Your task to perform on an android device: turn on translation in the chrome app Image 0: 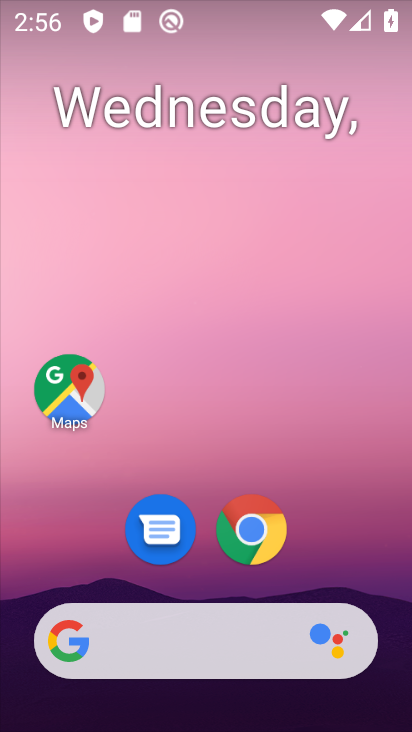
Step 0: click (258, 510)
Your task to perform on an android device: turn on translation in the chrome app Image 1: 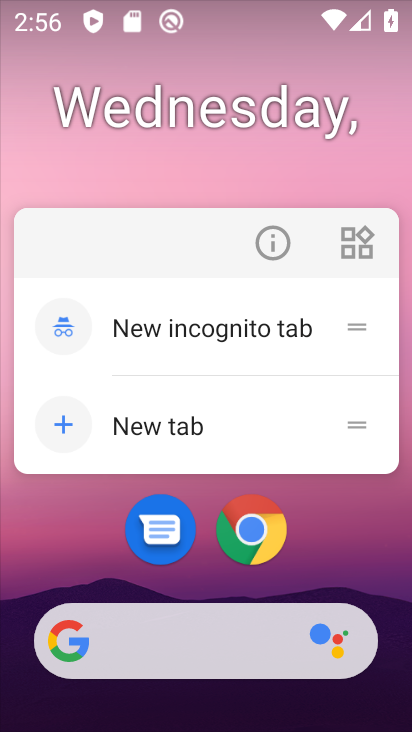
Step 1: click (261, 522)
Your task to perform on an android device: turn on translation in the chrome app Image 2: 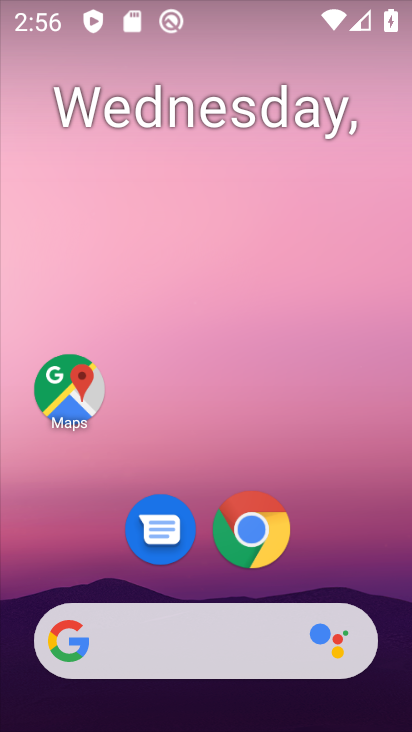
Step 2: click (261, 522)
Your task to perform on an android device: turn on translation in the chrome app Image 3: 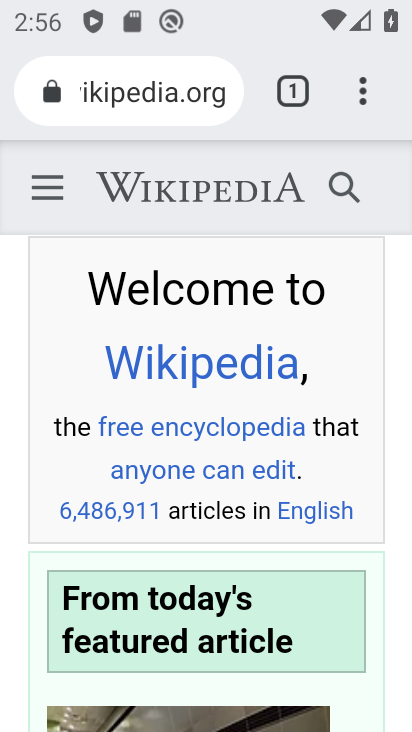
Step 3: click (359, 98)
Your task to perform on an android device: turn on translation in the chrome app Image 4: 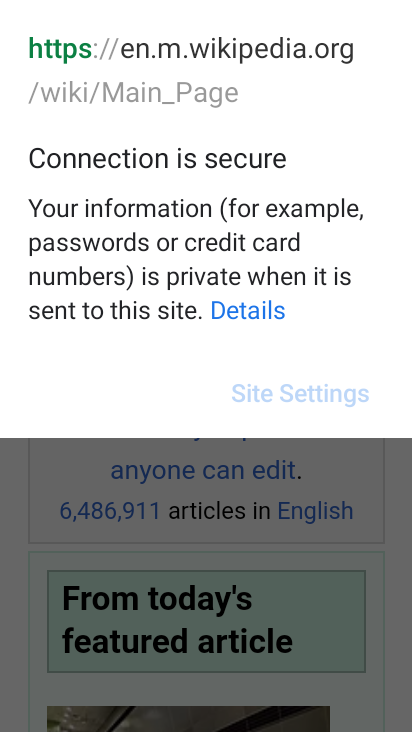
Step 4: drag from (168, 590) to (194, 370)
Your task to perform on an android device: turn on translation in the chrome app Image 5: 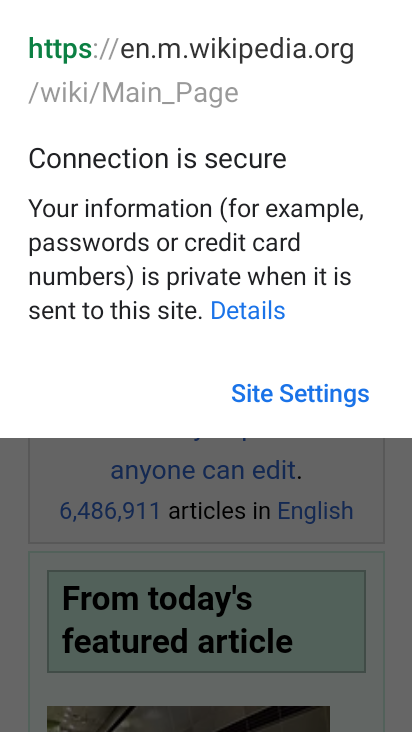
Step 5: click (230, 520)
Your task to perform on an android device: turn on translation in the chrome app Image 6: 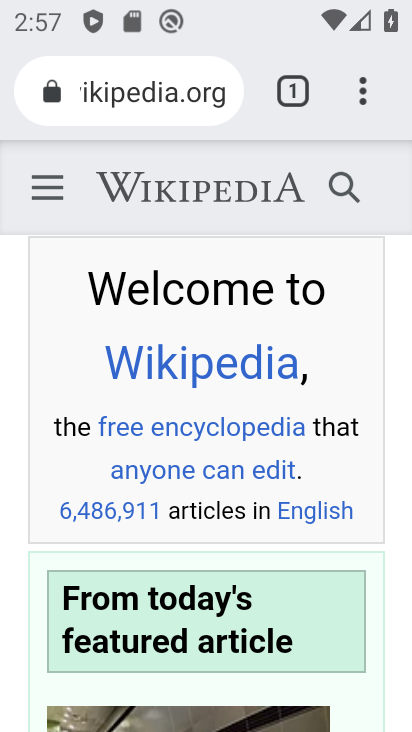
Step 6: click (361, 98)
Your task to perform on an android device: turn on translation in the chrome app Image 7: 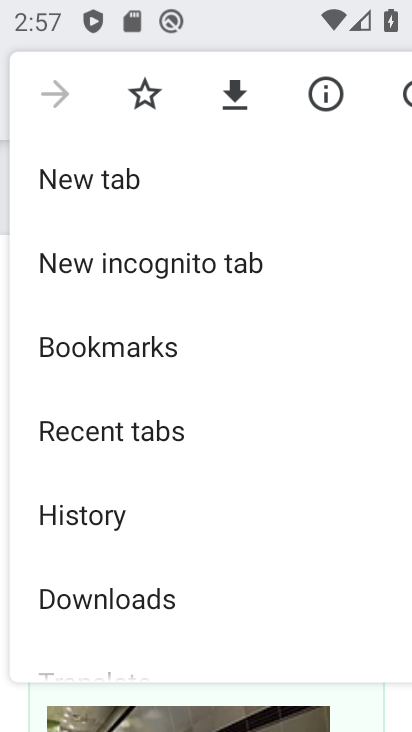
Step 7: drag from (212, 367) to (246, 228)
Your task to perform on an android device: turn on translation in the chrome app Image 8: 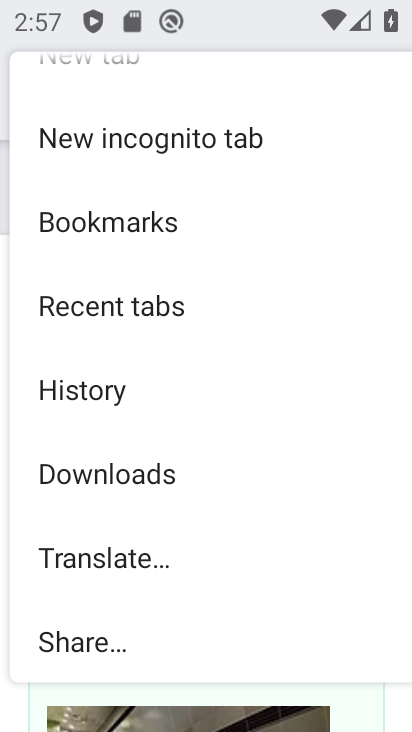
Step 8: drag from (206, 559) to (230, 233)
Your task to perform on an android device: turn on translation in the chrome app Image 9: 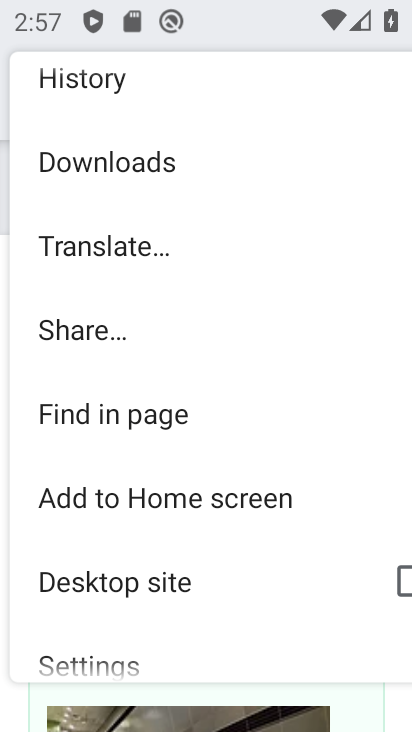
Step 9: drag from (170, 588) to (206, 282)
Your task to perform on an android device: turn on translation in the chrome app Image 10: 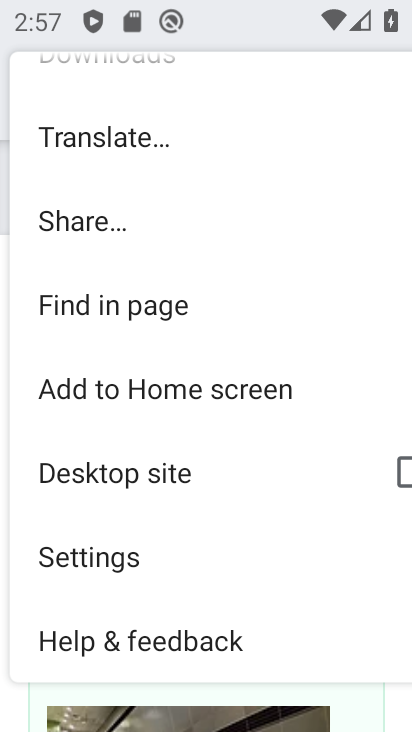
Step 10: click (125, 570)
Your task to perform on an android device: turn on translation in the chrome app Image 11: 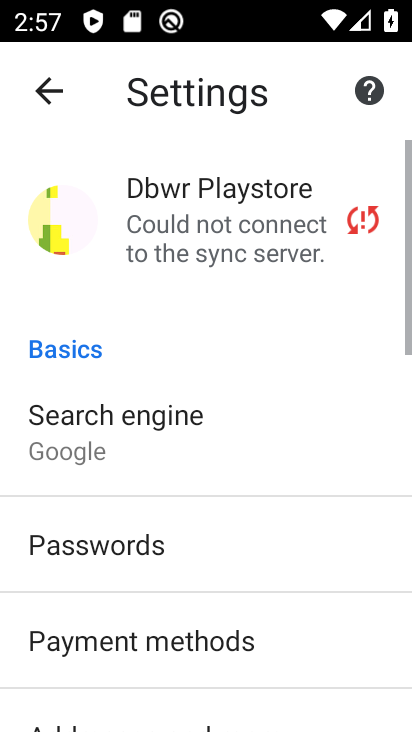
Step 11: drag from (214, 596) to (238, 264)
Your task to perform on an android device: turn on translation in the chrome app Image 12: 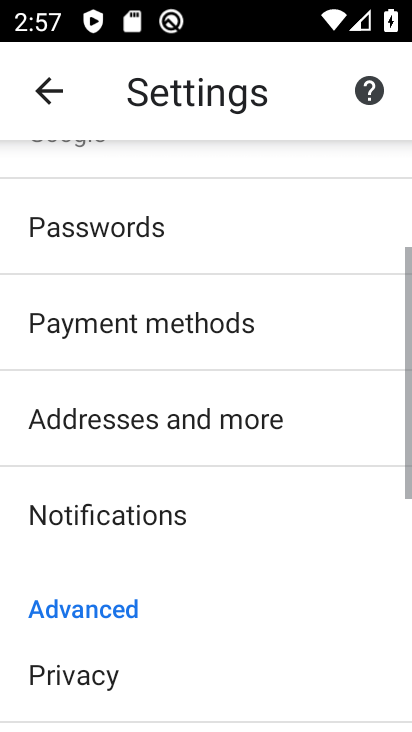
Step 12: drag from (244, 414) to (268, 296)
Your task to perform on an android device: turn on translation in the chrome app Image 13: 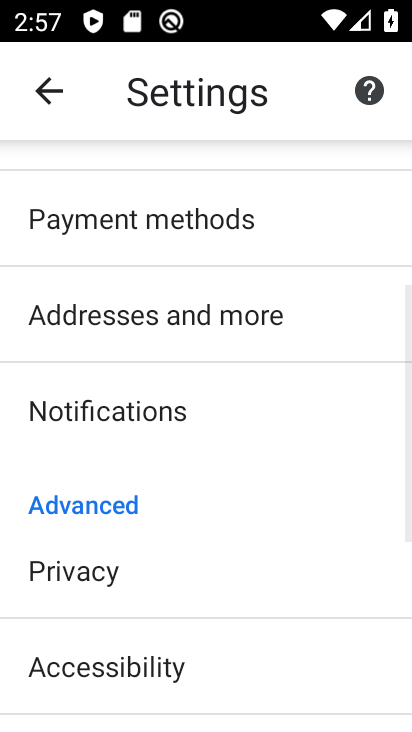
Step 13: drag from (221, 610) to (241, 397)
Your task to perform on an android device: turn on translation in the chrome app Image 14: 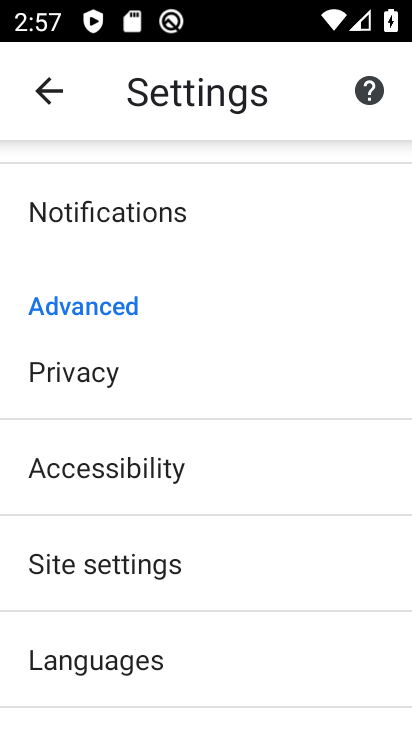
Step 14: click (154, 646)
Your task to perform on an android device: turn on translation in the chrome app Image 15: 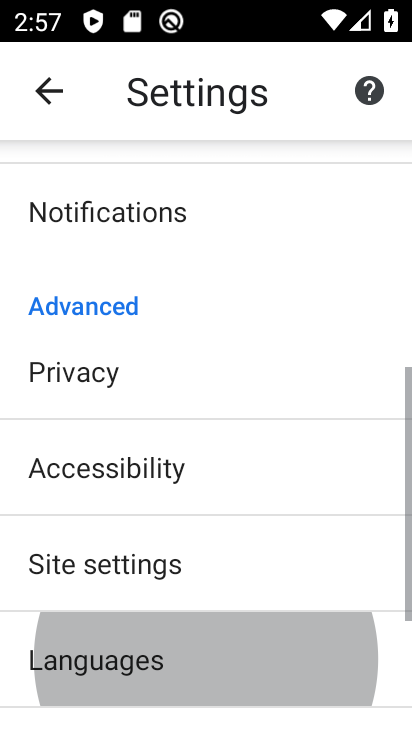
Step 15: click (161, 655)
Your task to perform on an android device: turn on translation in the chrome app Image 16: 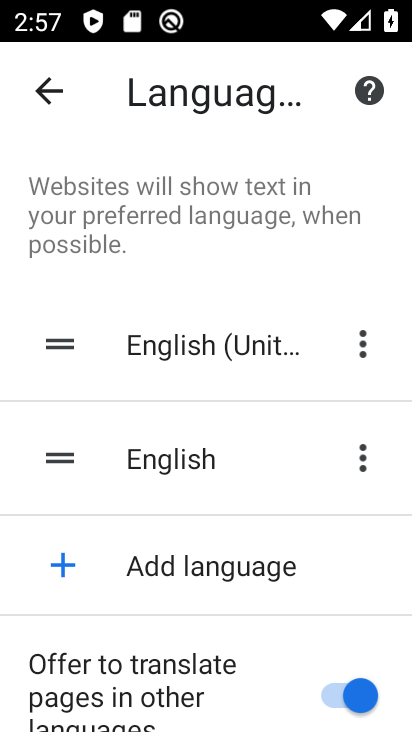
Step 16: task complete